Your task to perform on an android device: Open privacy settings Image 0: 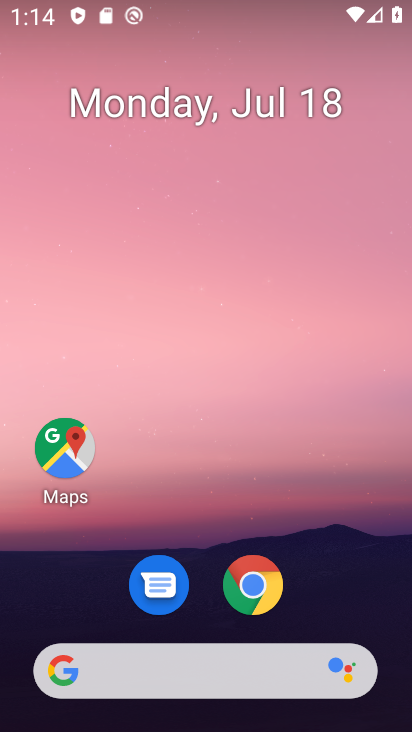
Step 0: drag from (228, 655) to (195, 124)
Your task to perform on an android device: Open privacy settings Image 1: 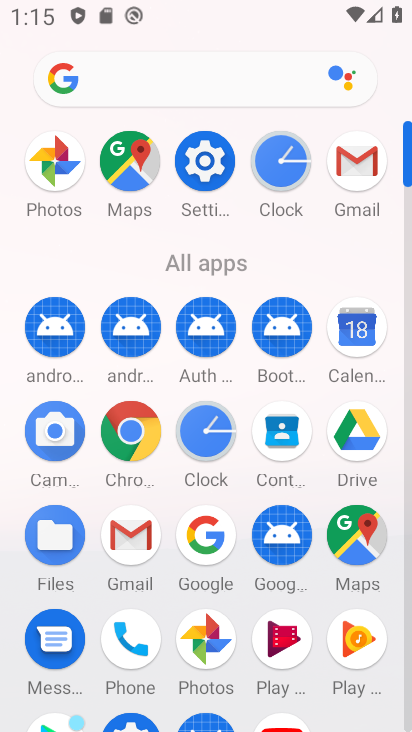
Step 1: click (217, 157)
Your task to perform on an android device: Open privacy settings Image 2: 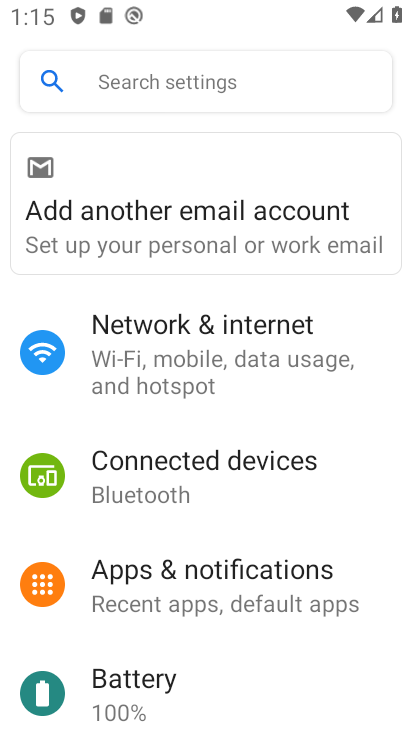
Step 2: drag from (197, 661) to (163, 112)
Your task to perform on an android device: Open privacy settings Image 3: 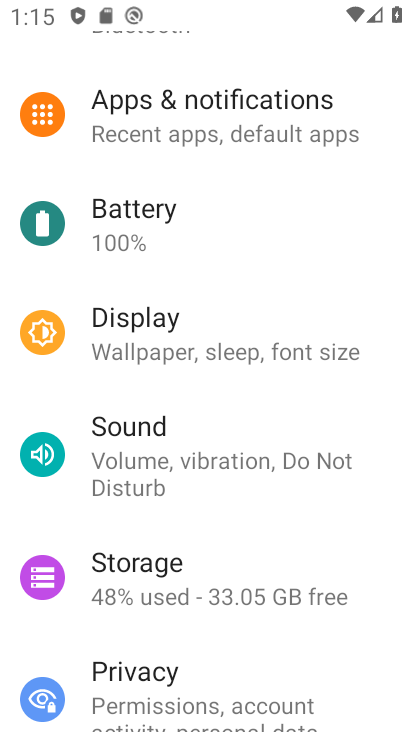
Step 3: click (137, 700)
Your task to perform on an android device: Open privacy settings Image 4: 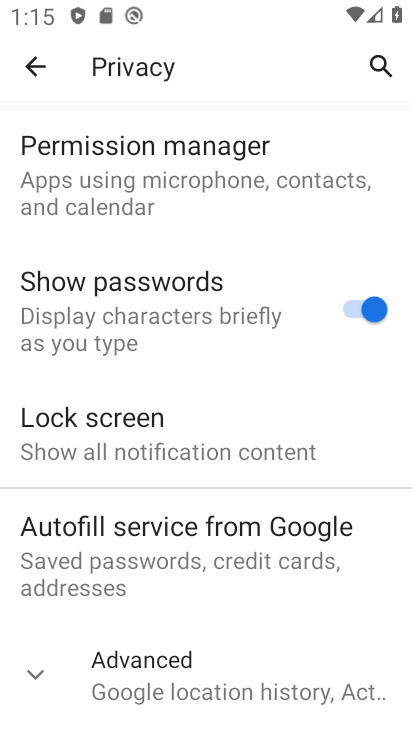
Step 4: task complete